Your task to perform on an android device: turn off improve location accuracy Image 0: 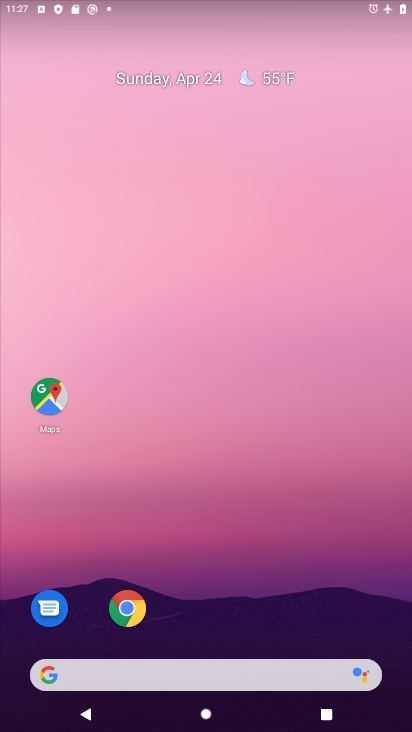
Step 0: drag from (377, 625) to (290, 98)
Your task to perform on an android device: turn off improve location accuracy Image 1: 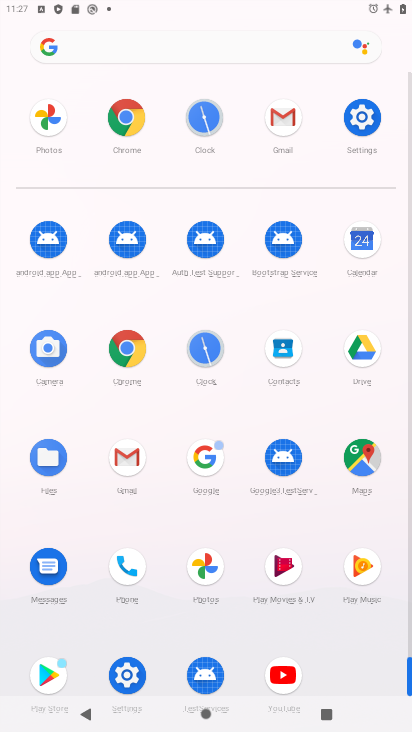
Step 1: click (123, 671)
Your task to perform on an android device: turn off improve location accuracy Image 2: 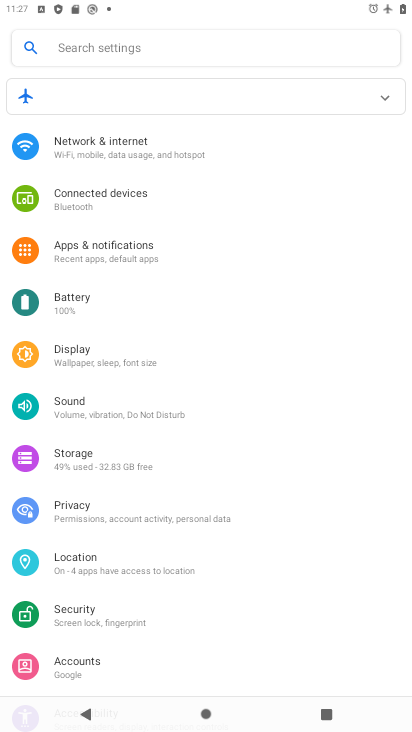
Step 2: click (73, 559)
Your task to perform on an android device: turn off improve location accuracy Image 3: 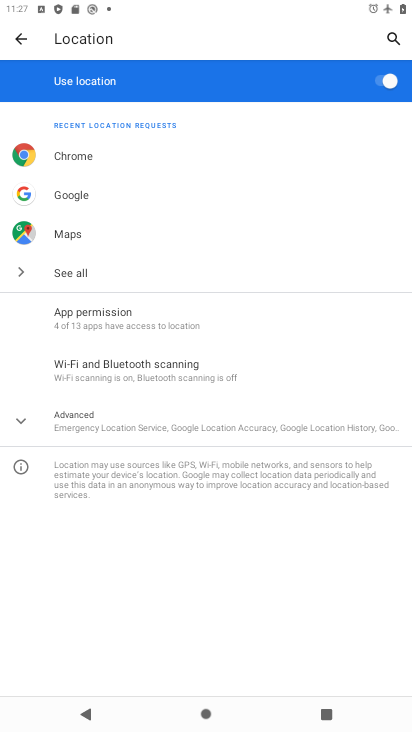
Step 3: click (23, 415)
Your task to perform on an android device: turn off improve location accuracy Image 4: 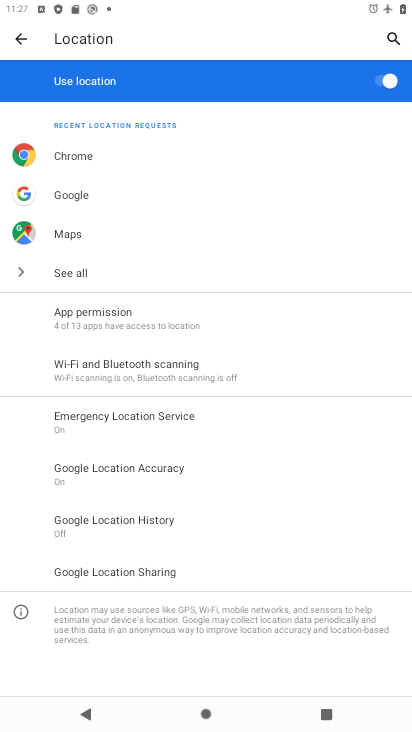
Step 4: click (96, 465)
Your task to perform on an android device: turn off improve location accuracy Image 5: 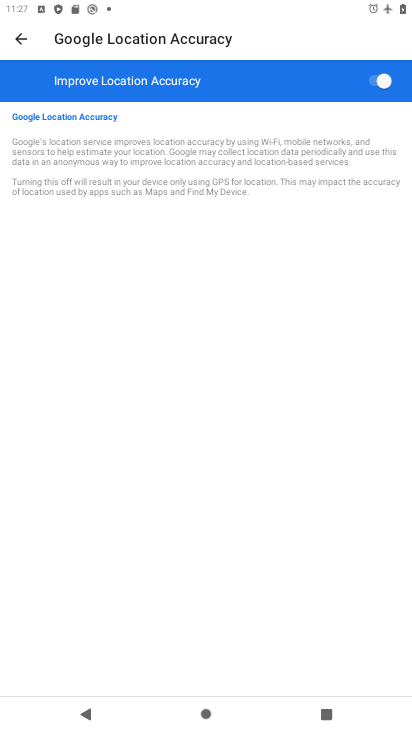
Step 5: click (374, 77)
Your task to perform on an android device: turn off improve location accuracy Image 6: 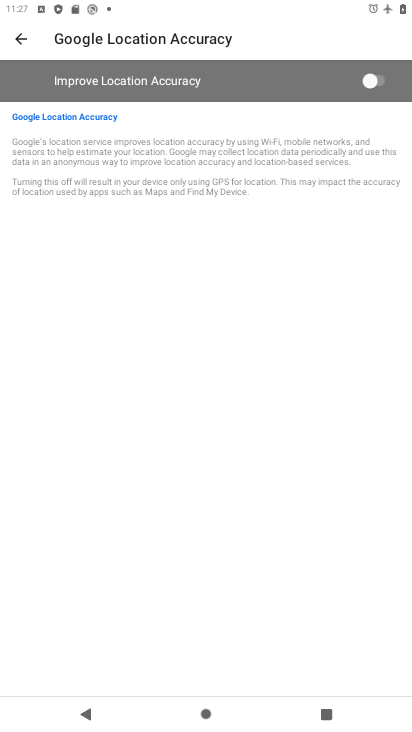
Step 6: task complete